Your task to perform on an android device: toggle location history Image 0: 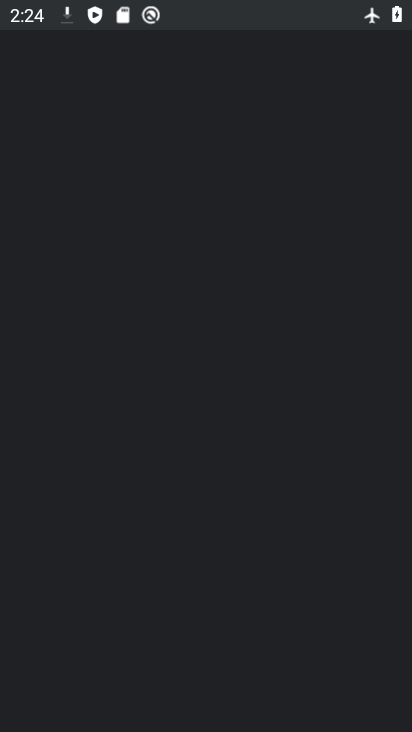
Step 0: drag from (255, 677) to (226, 45)
Your task to perform on an android device: toggle location history Image 1: 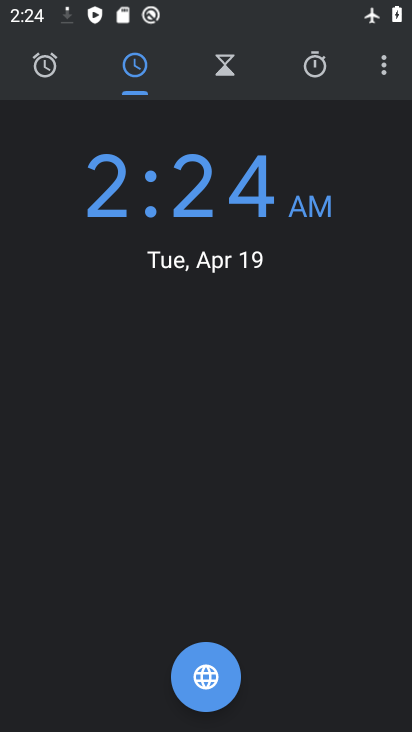
Step 1: press home button
Your task to perform on an android device: toggle location history Image 2: 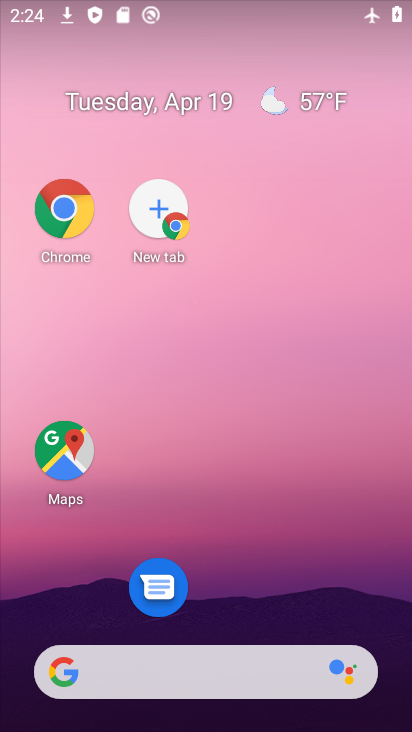
Step 2: click (64, 454)
Your task to perform on an android device: toggle location history Image 3: 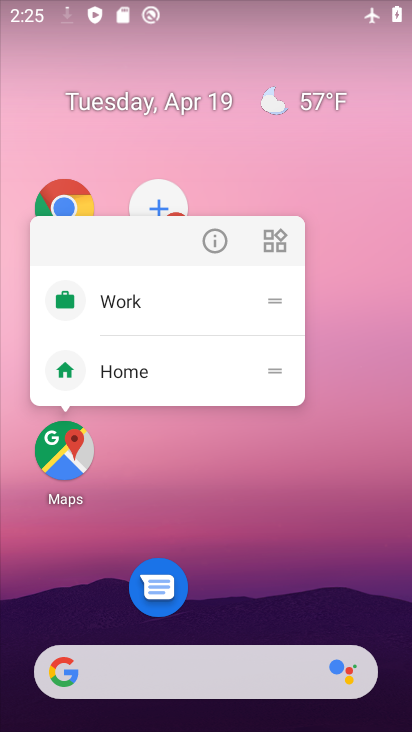
Step 3: click (72, 435)
Your task to perform on an android device: toggle location history Image 4: 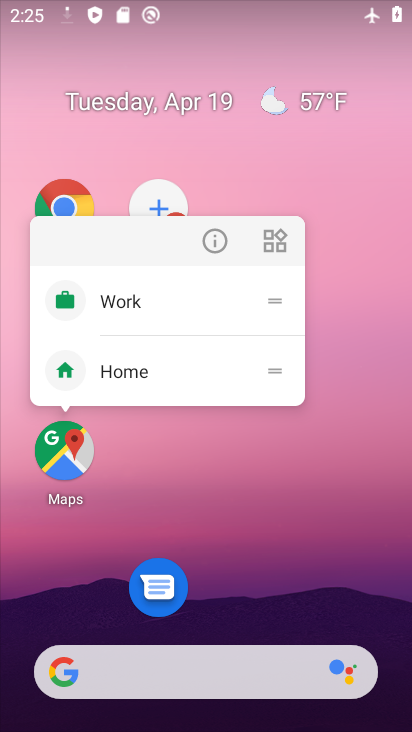
Step 4: drag from (336, 594) to (338, 6)
Your task to perform on an android device: toggle location history Image 5: 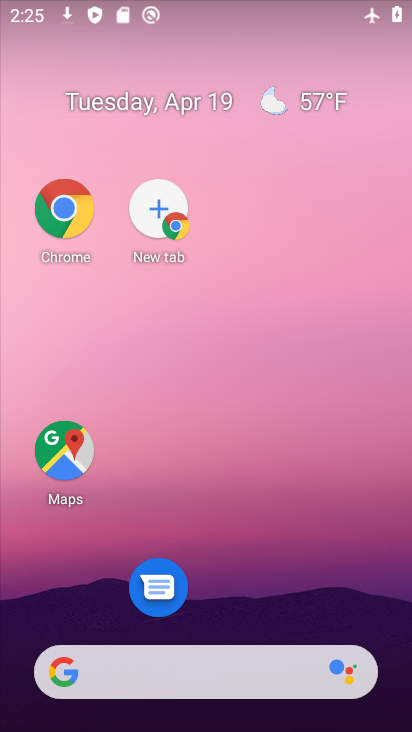
Step 5: drag from (305, 619) to (202, 249)
Your task to perform on an android device: toggle location history Image 6: 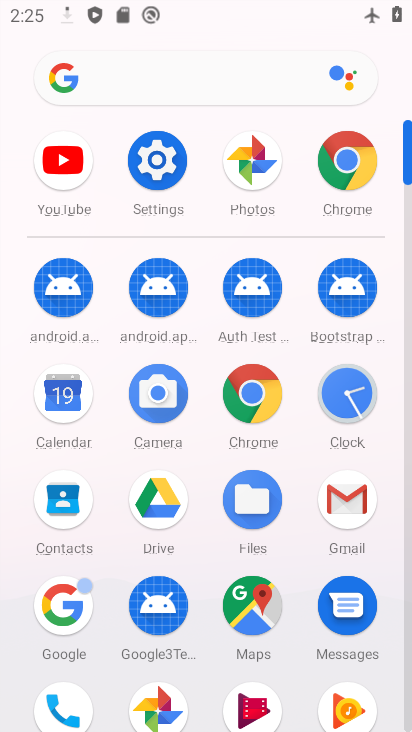
Step 6: click (230, 598)
Your task to perform on an android device: toggle location history Image 7: 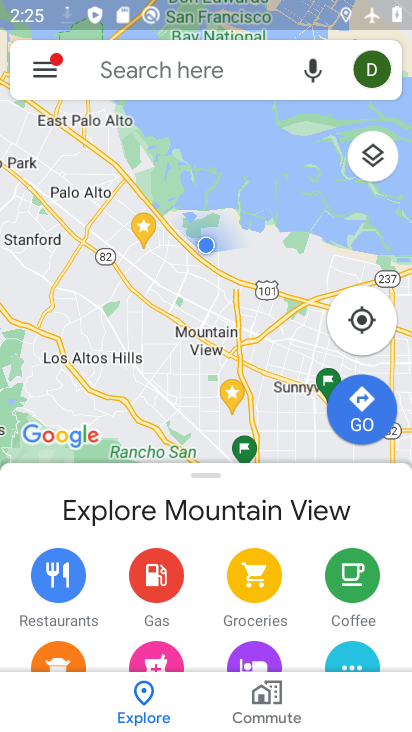
Step 7: click (56, 63)
Your task to perform on an android device: toggle location history Image 8: 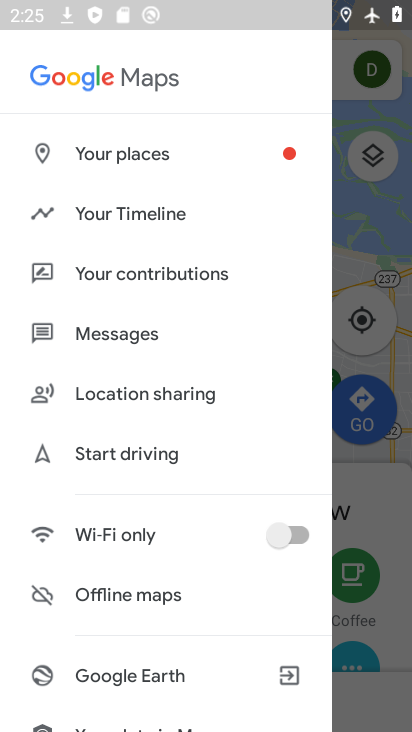
Step 8: click (146, 205)
Your task to perform on an android device: toggle location history Image 9: 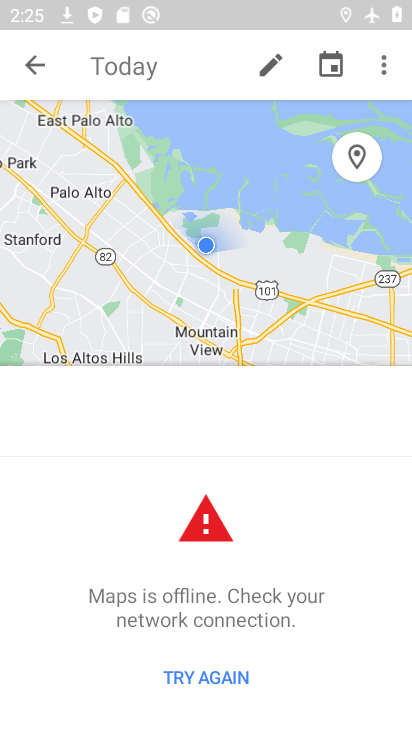
Step 9: click (381, 50)
Your task to perform on an android device: toggle location history Image 10: 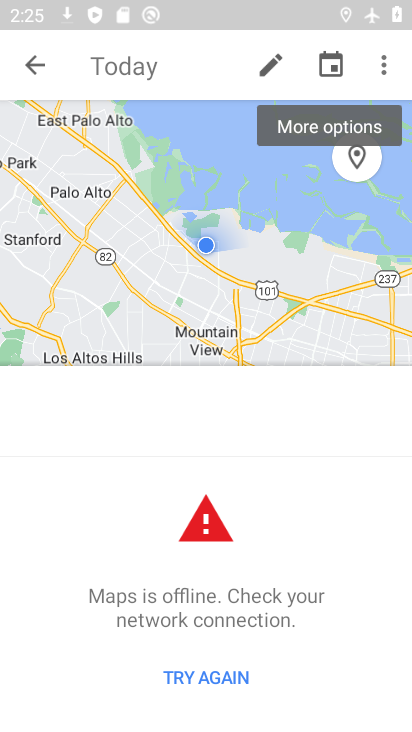
Step 10: click (385, 48)
Your task to perform on an android device: toggle location history Image 11: 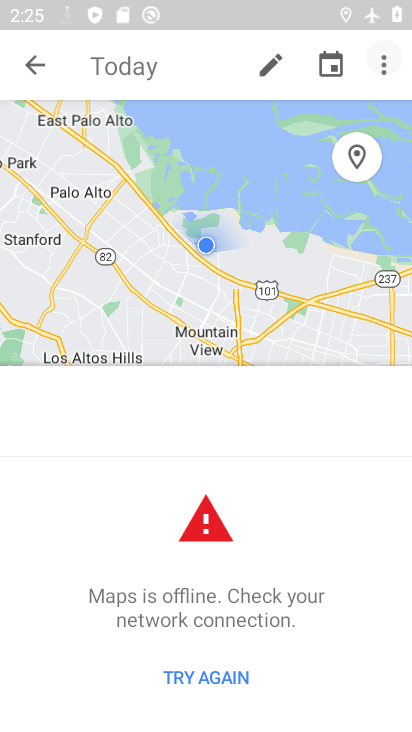
Step 11: click (385, 48)
Your task to perform on an android device: toggle location history Image 12: 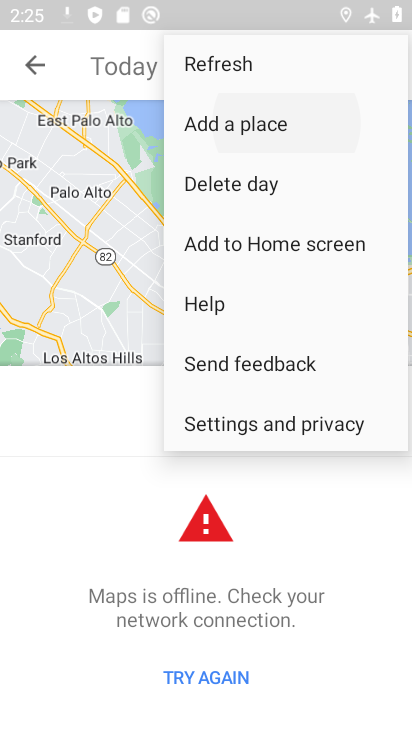
Step 12: click (386, 63)
Your task to perform on an android device: toggle location history Image 13: 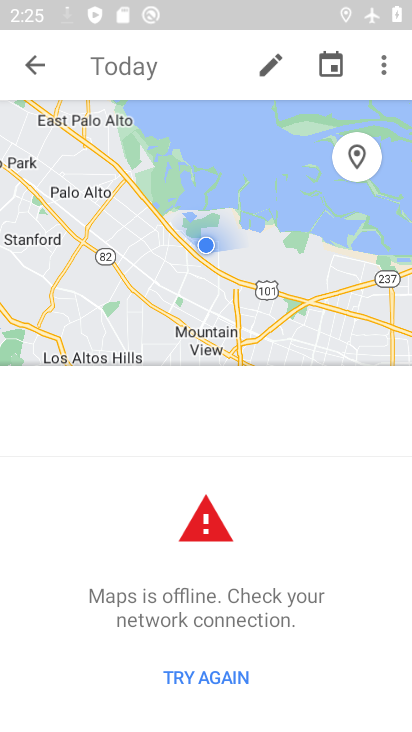
Step 13: click (382, 61)
Your task to perform on an android device: toggle location history Image 14: 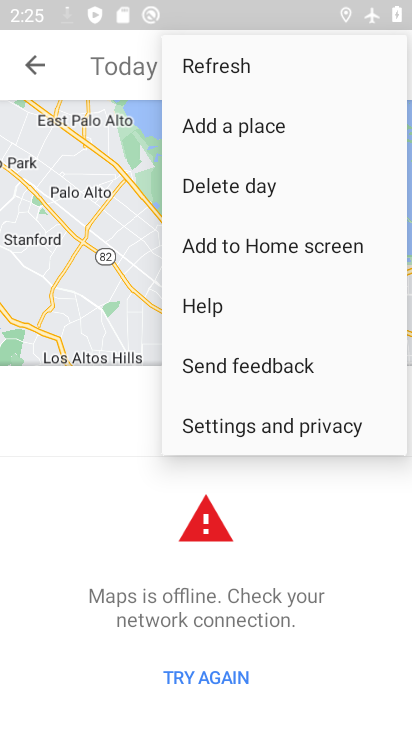
Step 14: click (282, 418)
Your task to perform on an android device: toggle location history Image 15: 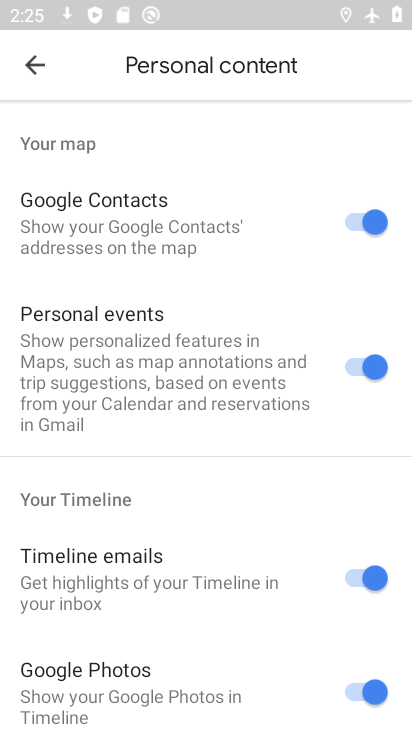
Step 15: drag from (218, 346) to (191, 220)
Your task to perform on an android device: toggle location history Image 16: 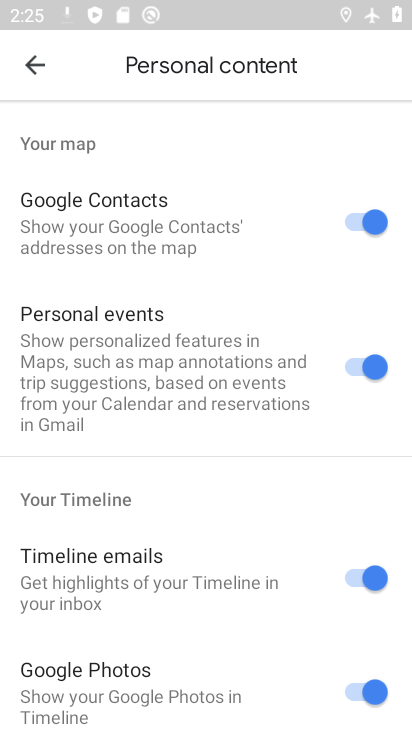
Step 16: drag from (207, 483) to (149, 173)
Your task to perform on an android device: toggle location history Image 17: 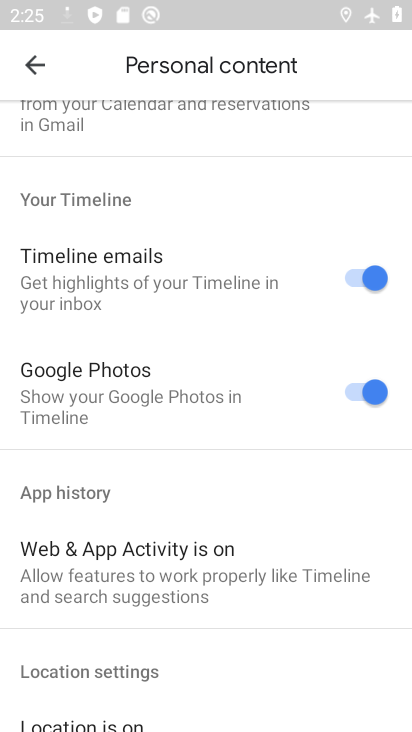
Step 17: drag from (165, 520) to (121, 197)
Your task to perform on an android device: toggle location history Image 18: 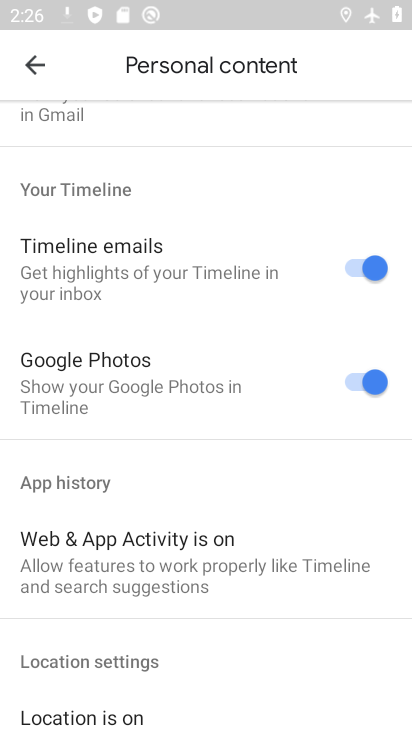
Step 18: drag from (141, 415) to (107, 171)
Your task to perform on an android device: toggle location history Image 19: 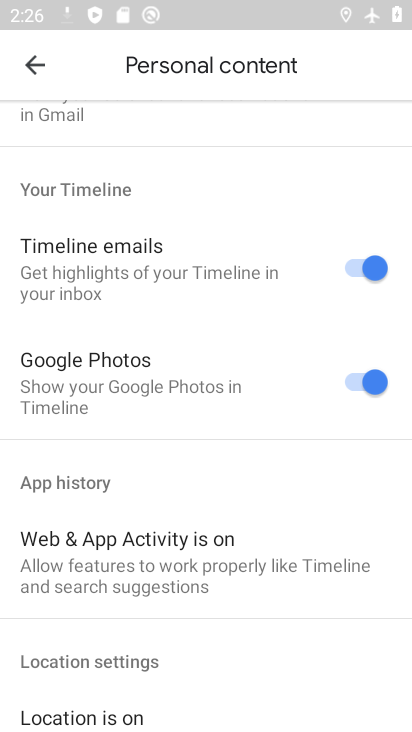
Step 19: drag from (128, 474) to (67, 121)
Your task to perform on an android device: toggle location history Image 20: 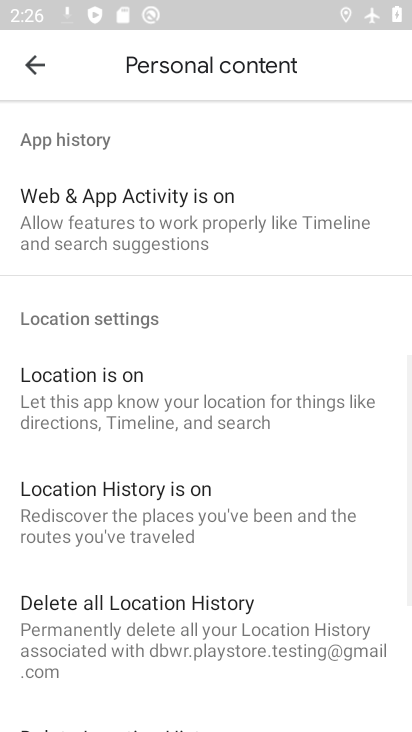
Step 20: drag from (148, 461) to (98, 135)
Your task to perform on an android device: toggle location history Image 21: 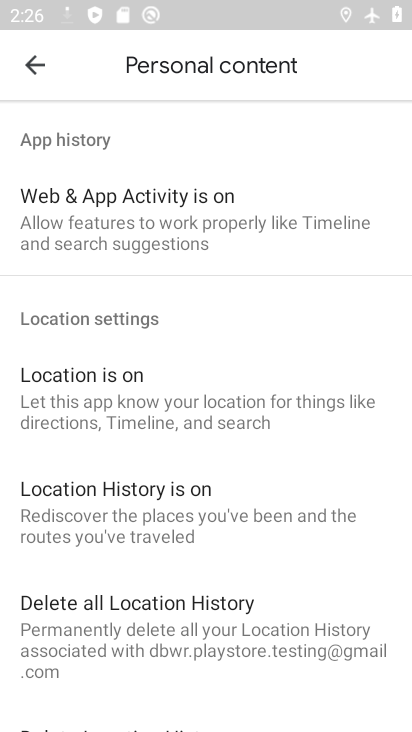
Step 21: click (97, 502)
Your task to perform on an android device: toggle location history Image 22: 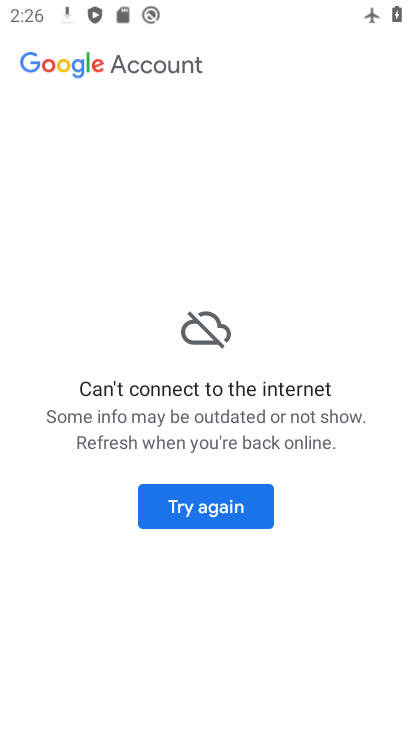
Step 22: click (212, 502)
Your task to perform on an android device: toggle location history Image 23: 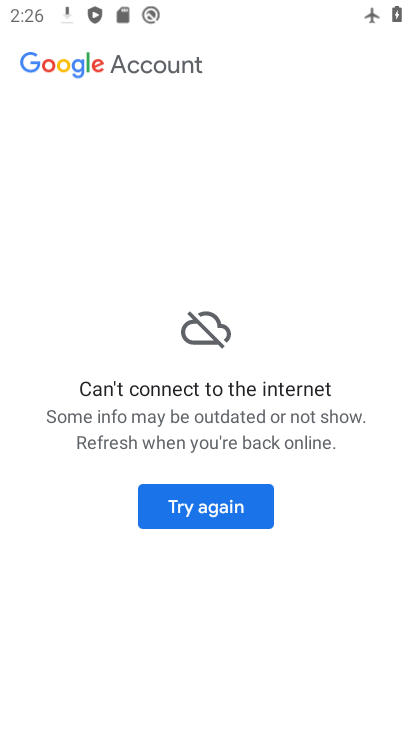
Step 23: task complete